Your task to perform on an android device: What's the weather today? Image 0: 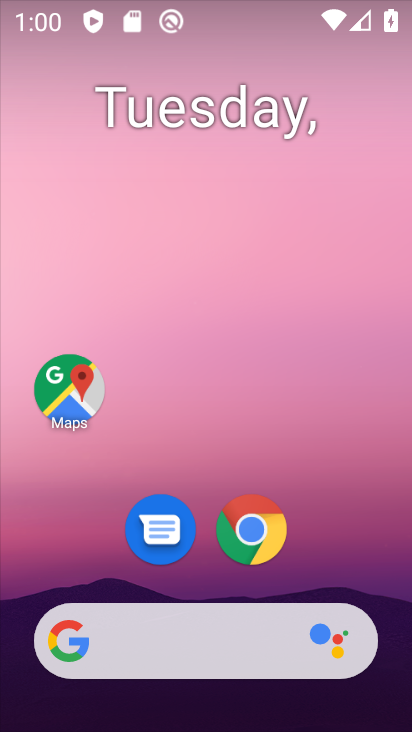
Step 0: drag from (349, 519) to (277, 184)
Your task to perform on an android device: What's the weather today? Image 1: 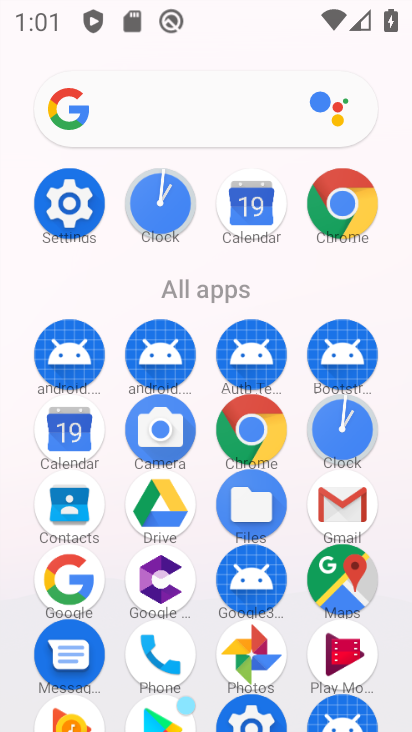
Step 1: click (346, 207)
Your task to perform on an android device: What's the weather today? Image 2: 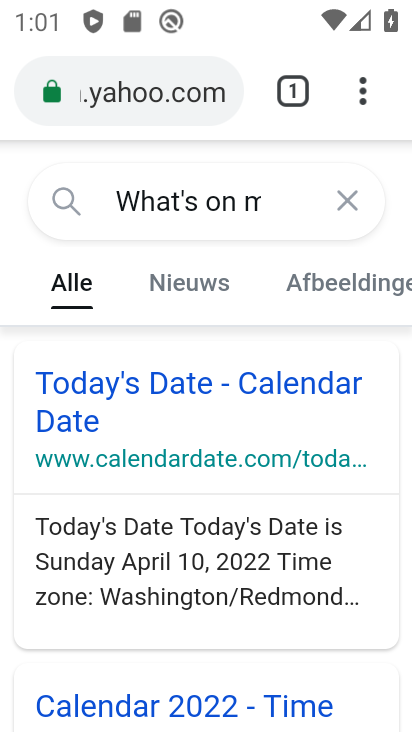
Step 2: click (231, 209)
Your task to perform on an android device: What's the weather today? Image 3: 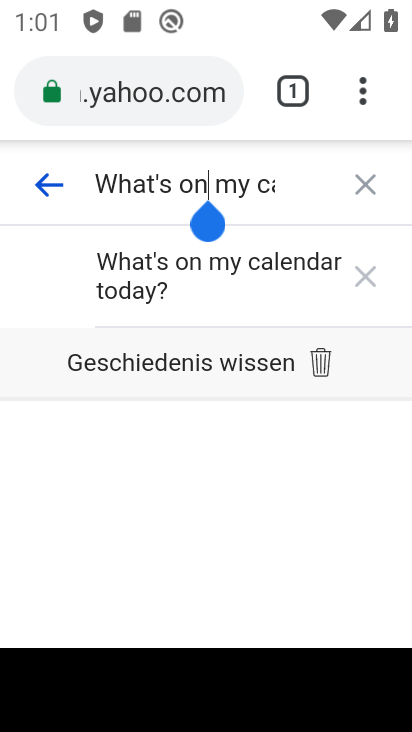
Step 3: click (369, 187)
Your task to perform on an android device: What's the weather today? Image 4: 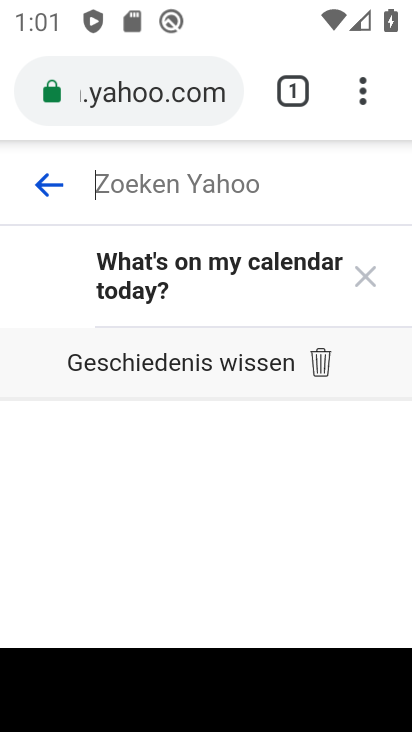
Step 4: type "What's the weather today?"
Your task to perform on an android device: What's the weather today? Image 5: 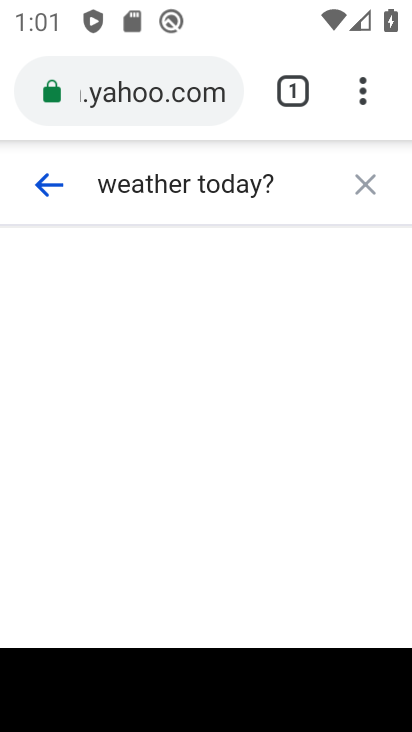
Step 5: click (204, 209)
Your task to perform on an android device: What's the weather today? Image 6: 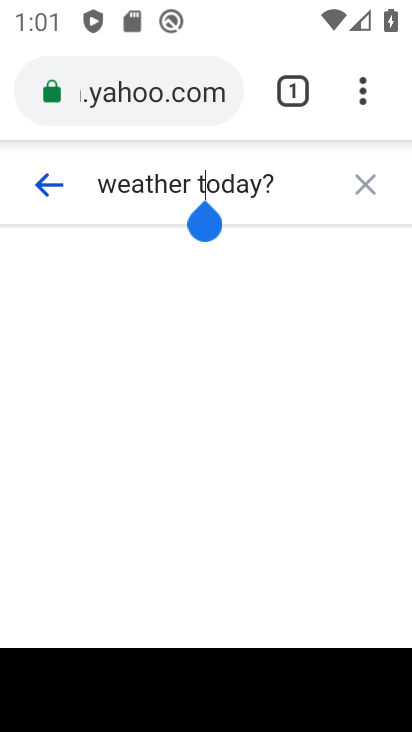
Step 6: press enter
Your task to perform on an android device: What's the weather today? Image 7: 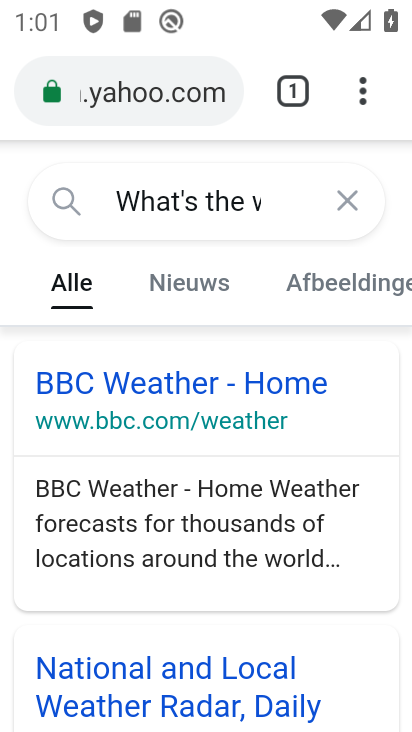
Step 7: click (189, 382)
Your task to perform on an android device: What's the weather today? Image 8: 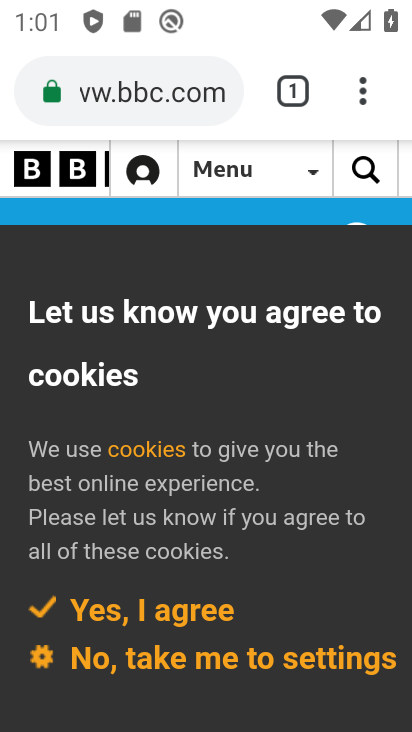
Step 8: task complete